Your task to perform on an android device: Open Amazon Image 0: 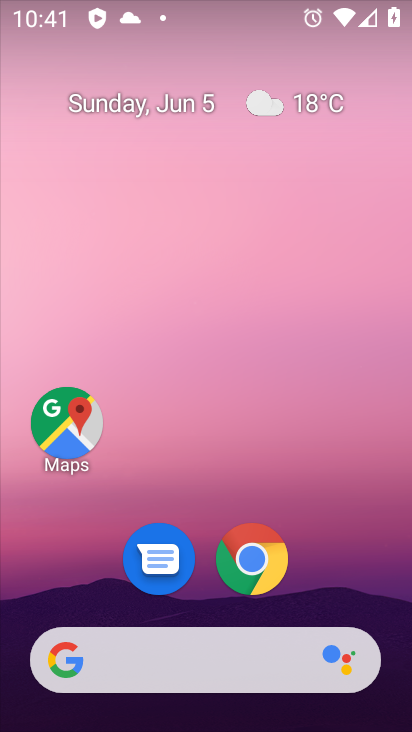
Step 0: click (254, 563)
Your task to perform on an android device: Open Amazon Image 1: 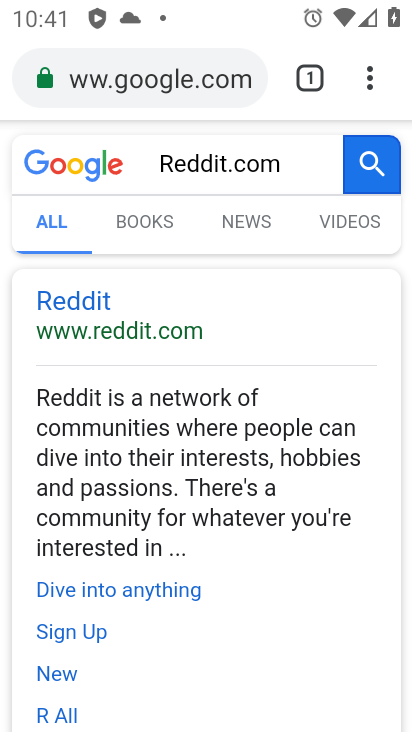
Step 1: click (247, 74)
Your task to perform on an android device: Open Amazon Image 2: 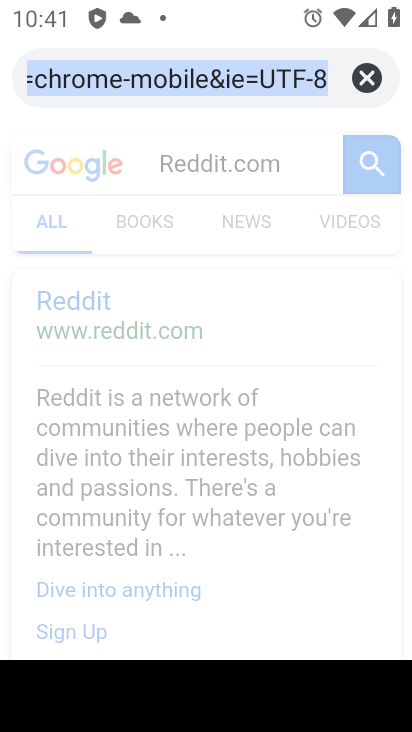
Step 2: click (364, 82)
Your task to perform on an android device: Open Amazon Image 3: 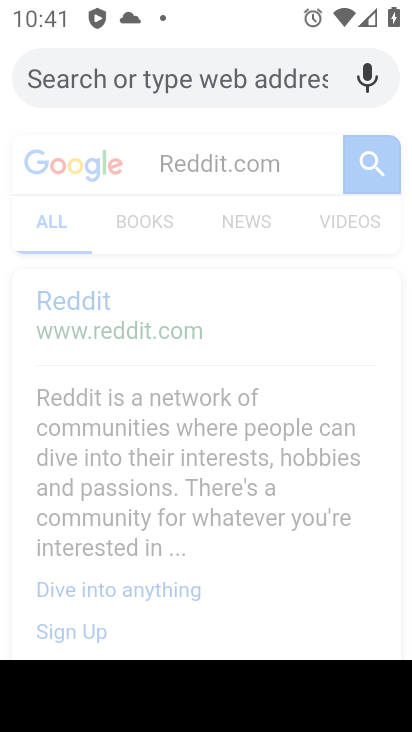
Step 3: type " Amazon"
Your task to perform on an android device: Open Amazon Image 4: 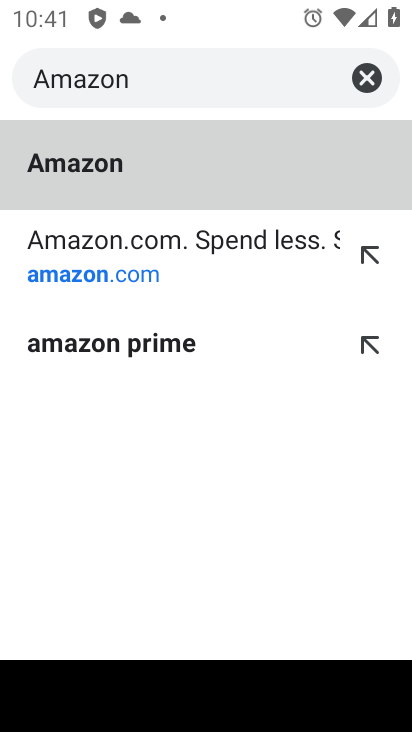
Step 4: click (63, 281)
Your task to perform on an android device: Open Amazon Image 5: 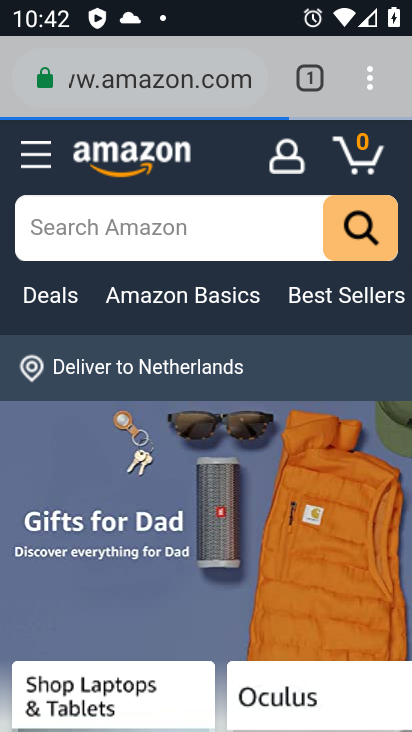
Step 5: task complete